Your task to perform on an android device: Open Chrome and go to the settings page Image 0: 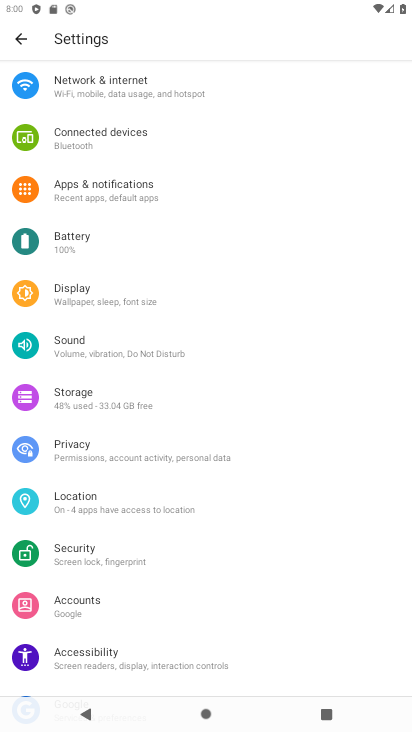
Step 0: press home button
Your task to perform on an android device: Open Chrome and go to the settings page Image 1: 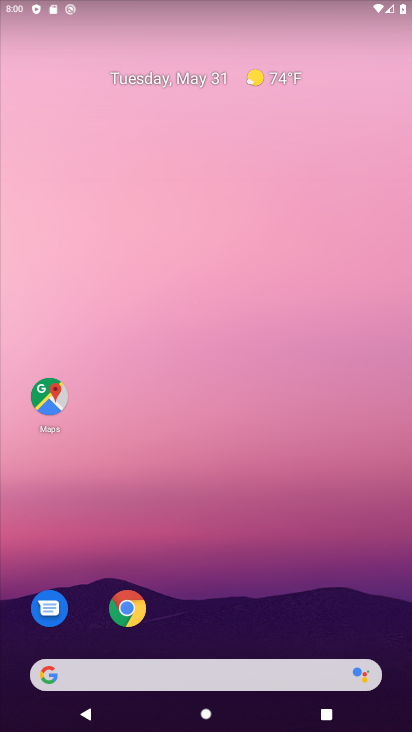
Step 1: click (136, 611)
Your task to perform on an android device: Open Chrome and go to the settings page Image 2: 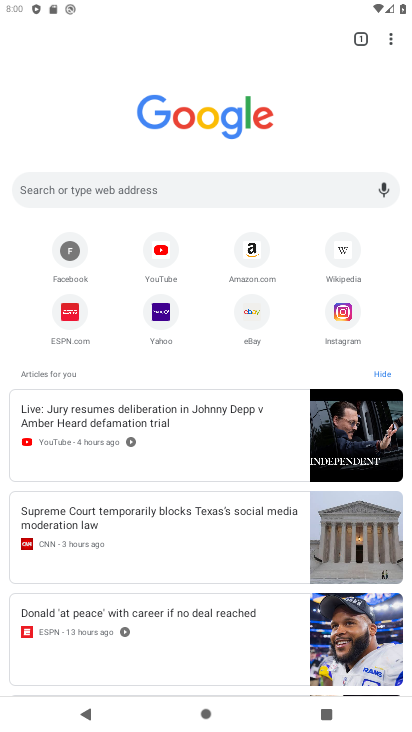
Step 2: click (391, 48)
Your task to perform on an android device: Open Chrome and go to the settings page Image 3: 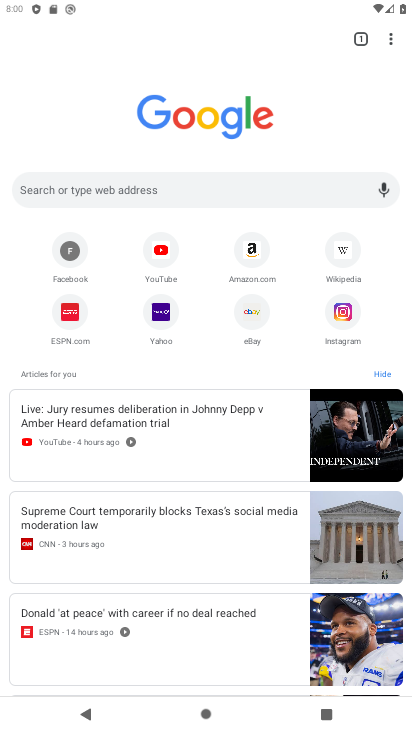
Step 3: task complete